Your task to perform on an android device: star an email in the gmail app Image 0: 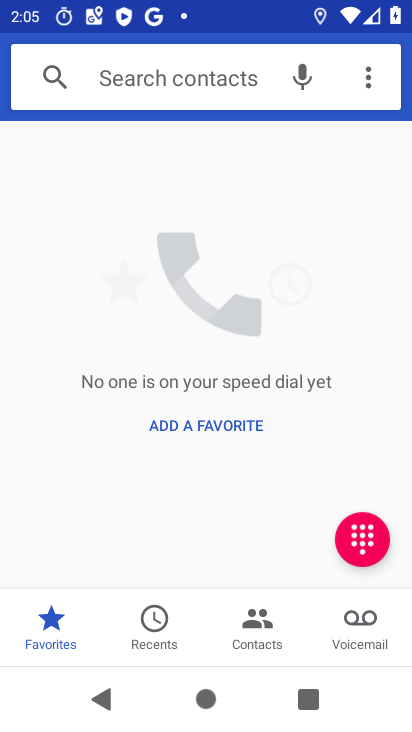
Step 0: press home button
Your task to perform on an android device: star an email in the gmail app Image 1: 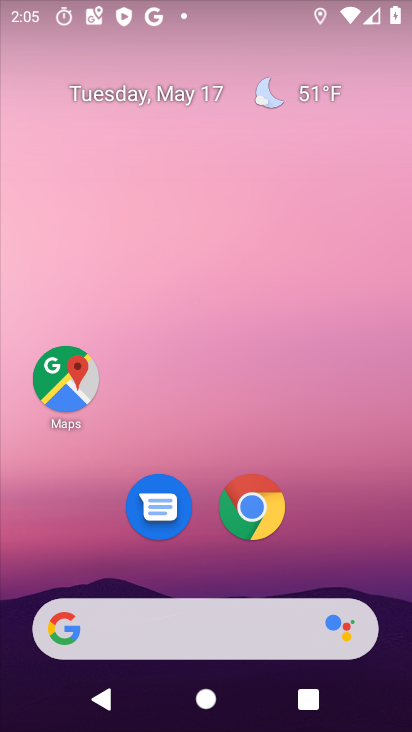
Step 1: drag from (211, 564) to (229, 104)
Your task to perform on an android device: star an email in the gmail app Image 2: 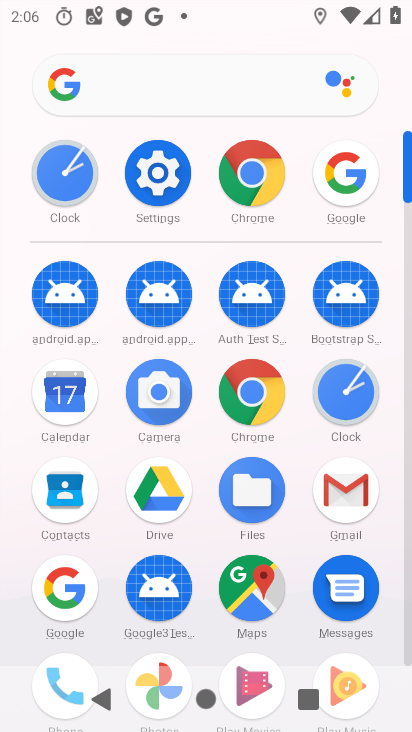
Step 2: click (339, 503)
Your task to perform on an android device: star an email in the gmail app Image 3: 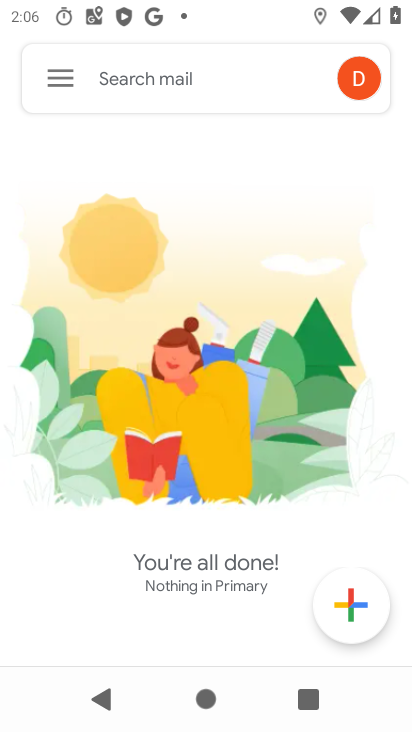
Step 3: click (61, 84)
Your task to perform on an android device: star an email in the gmail app Image 4: 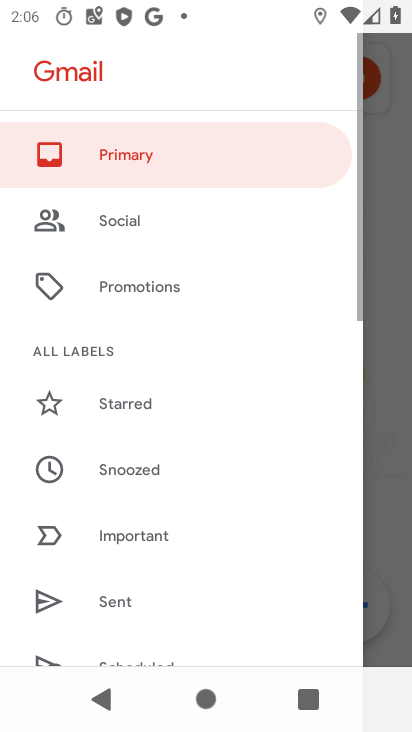
Step 4: drag from (184, 540) to (216, 142)
Your task to perform on an android device: star an email in the gmail app Image 5: 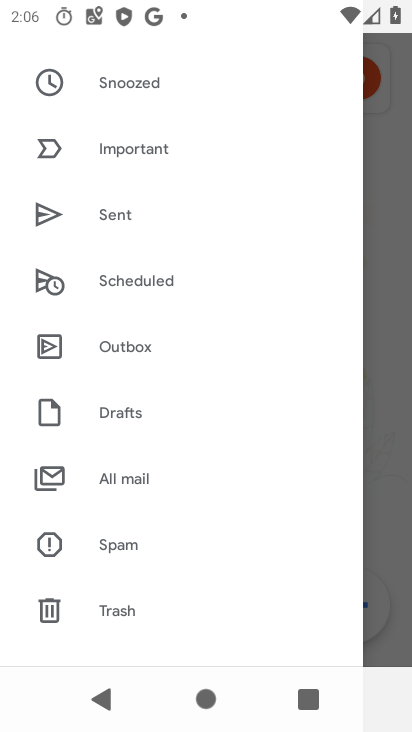
Step 5: click (101, 477)
Your task to perform on an android device: star an email in the gmail app Image 6: 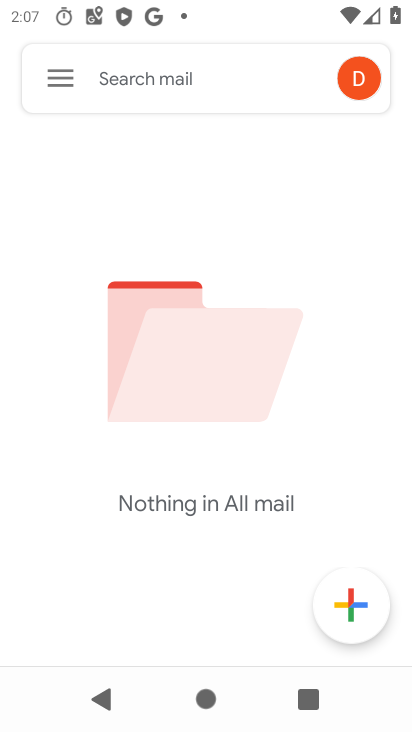
Step 6: task complete